Your task to perform on an android device: Go to Yahoo.com Image 0: 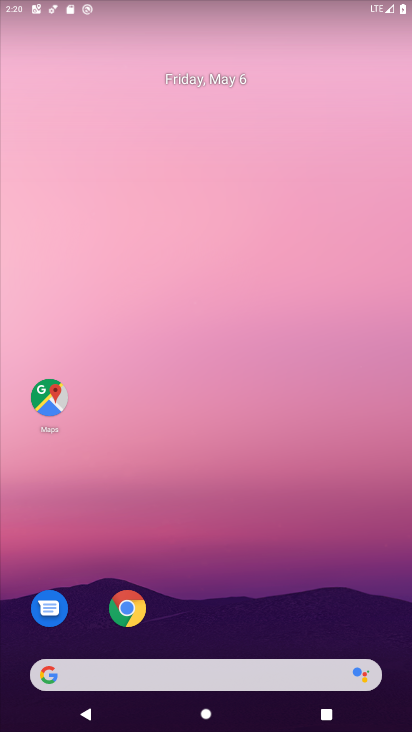
Step 0: click (62, 393)
Your task to perform on an android device: Go to Yahoo.com Image 1: 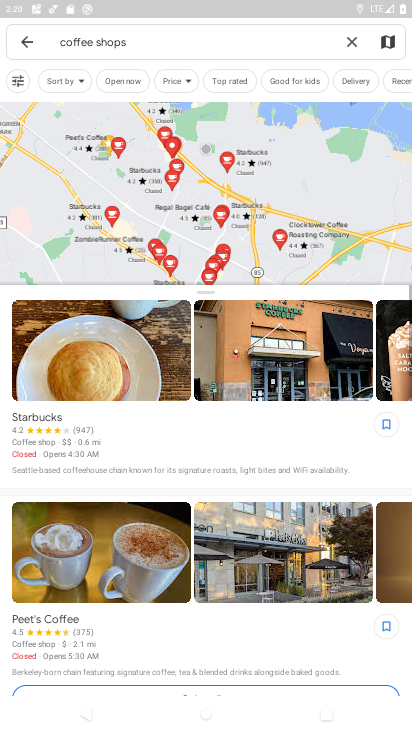
Step 1: press home button
Your task to perform on an android device: Go to Yahoo.com Image 2: 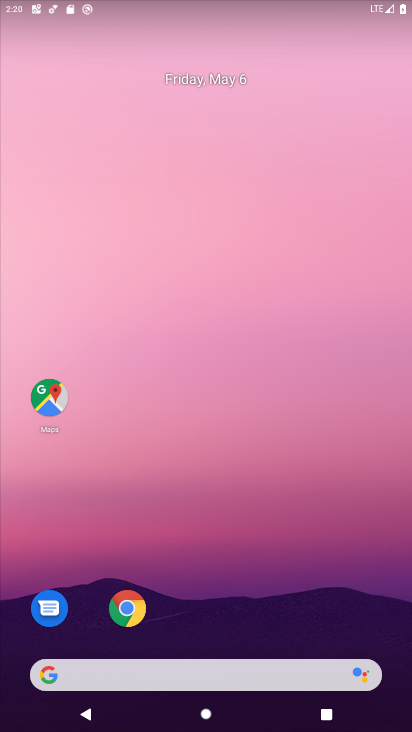
Step 2: click (124, 602)
Your task to perform on an android device: Go to Yahoo.com Image 3: 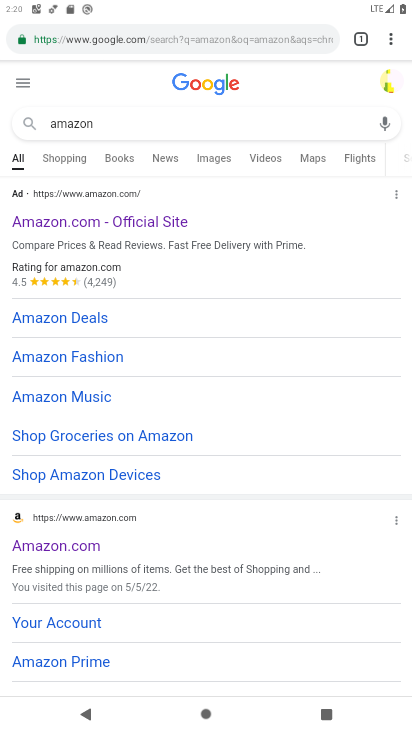
Step 3: click (395, 37)
Your task to perform on an android device: Go to Yahoo.com Image 4: 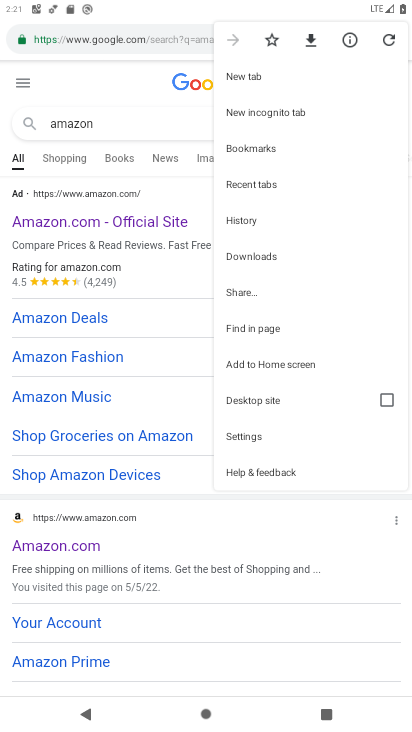
Step 4: click (253, 85)
Your task to perform on an android device: Go to Yahoo.com Image 5: 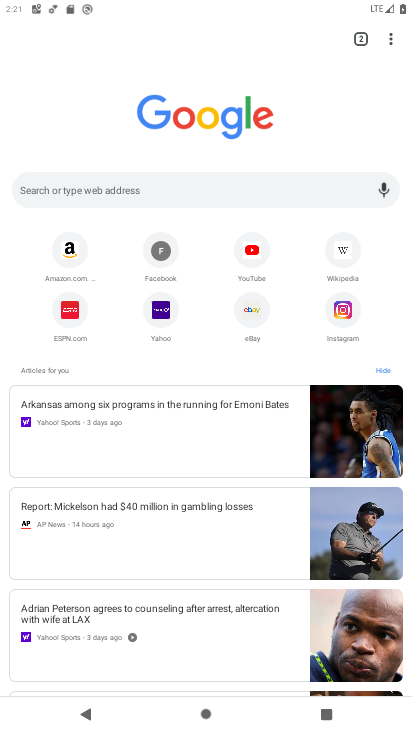
Step 5: click (177, 327)
Your task to perform on an android device: Go to Yahoo.com Image 6: 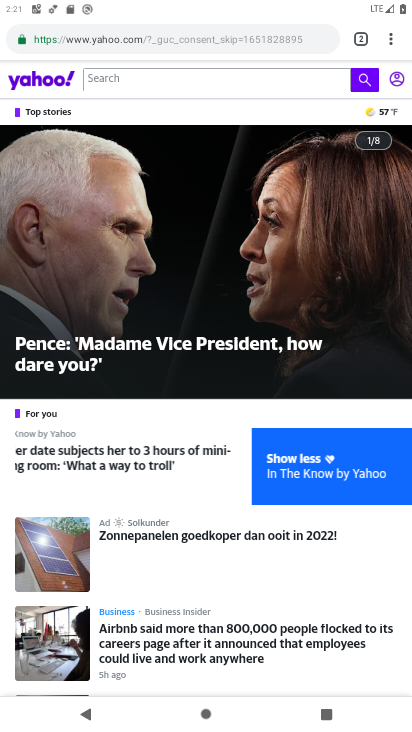
Step 6: task complete